Your task to perform on an android device: Open calendar and show me the third week of next month Image 0: 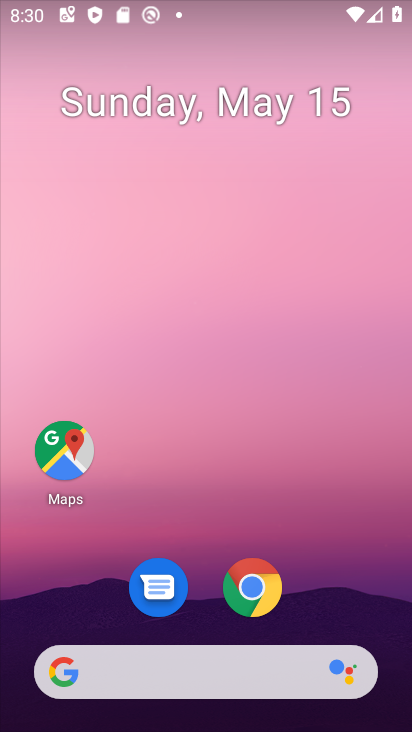
Step 0: drag from (352, 597) to (279, 60)
Your task to perform on an android device: Open calendar and show me the third week of next month Image 1: 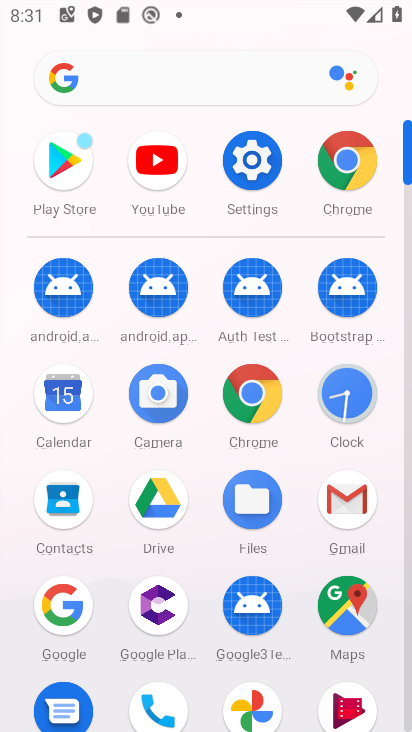
Step 1: click (39, 390)
Your task to perform on an android device: Open calendar and show me the third week of next month Image 2: 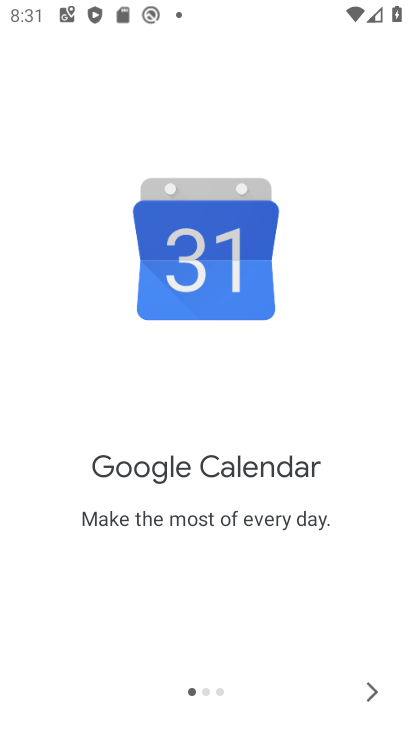
Step 2: click (372, 682)
Your task to perform on an android device: Open calendar and show me the third week of next month Image 3: 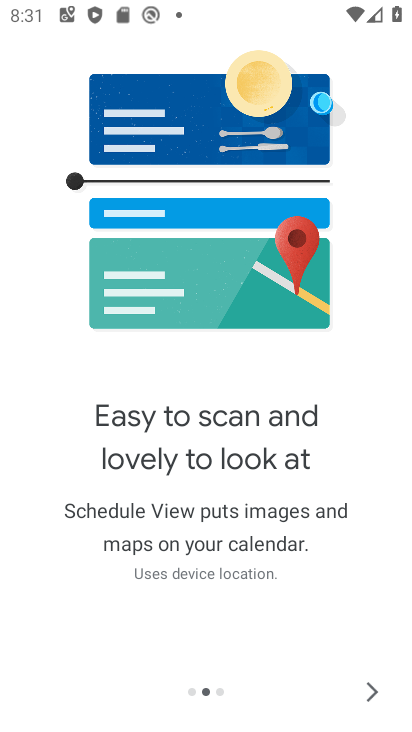
Step 3: click (370, 683)
Your task to perform on an android device: Open calendar and show me the third week of next month Image 4: 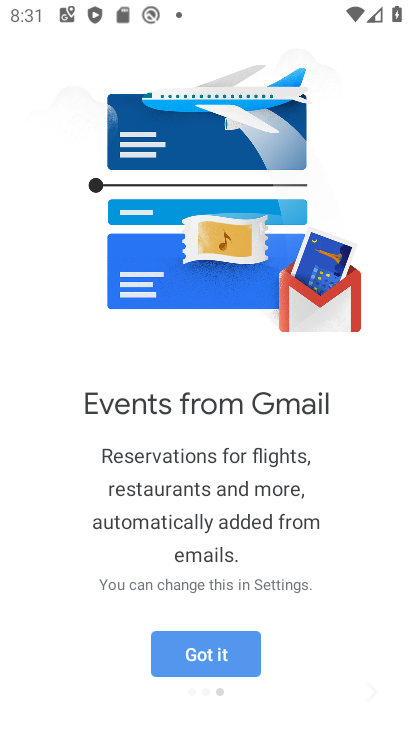
Step 4: click (370, 683)
Your task to perform on an android device: Open calendar and show me the third week of next month Image 5: 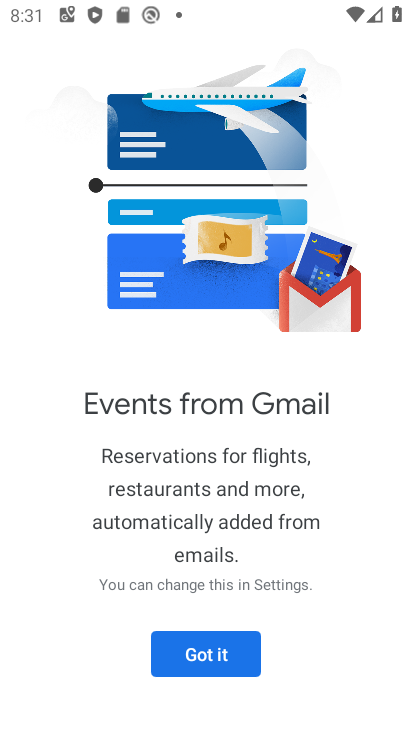
Step 5: click (219, 657)
Your task to perform on an android device: Open calendar and show me the third week of next month Image 6: 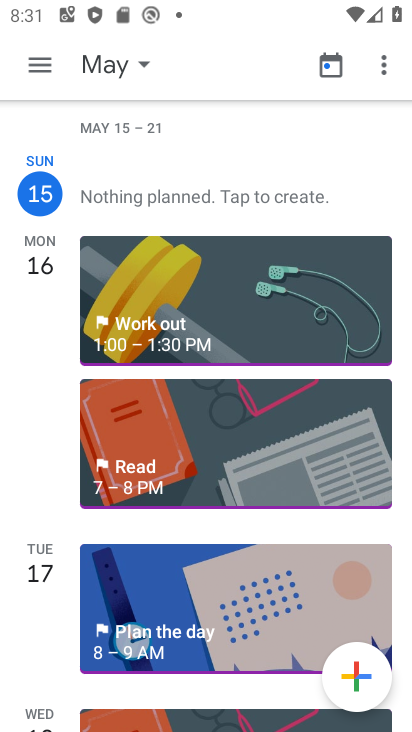
Step 6: click (118, 60)
Your task to perform on an android device: Open calendar and show me the third week of next month Image 7: 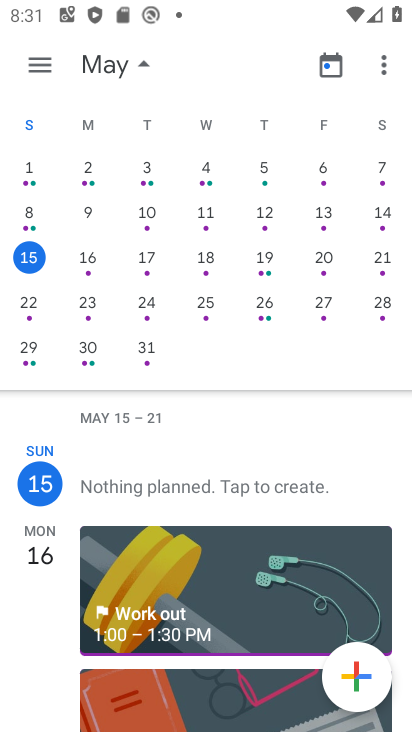
Step 7: drag from (359, 279) to (18, 252)
Your task to perform on an android device: Open calendar and show me the third week of next month Image 8: 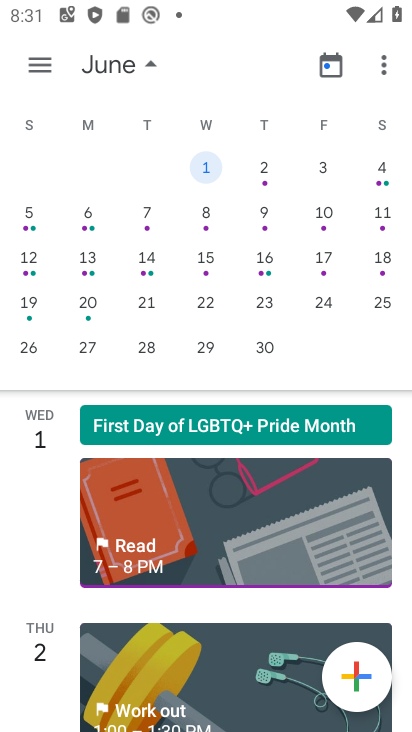
Step 8: click (34, 292)
Your task to perform on an android device: Open calendar and show me the third week of next month Image 9: 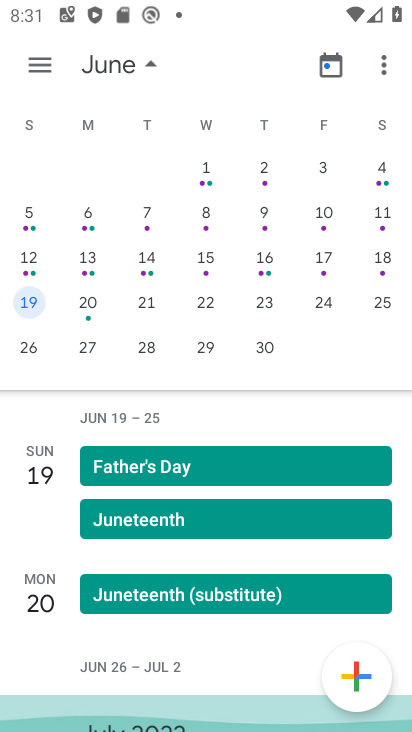
Step 9: task complete